Your task to perform on an android device: Open calendar and show me the fourth week of next month Image 0: 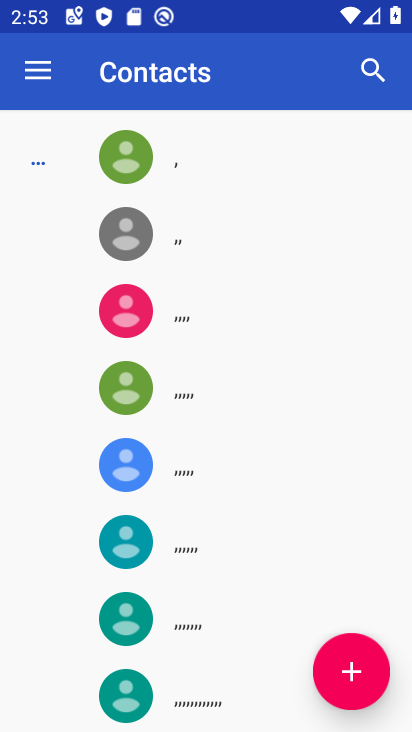
Step 0: press back button
Your task to perform on an android device: Open calendar and show me the fourth week of next month Image 1: 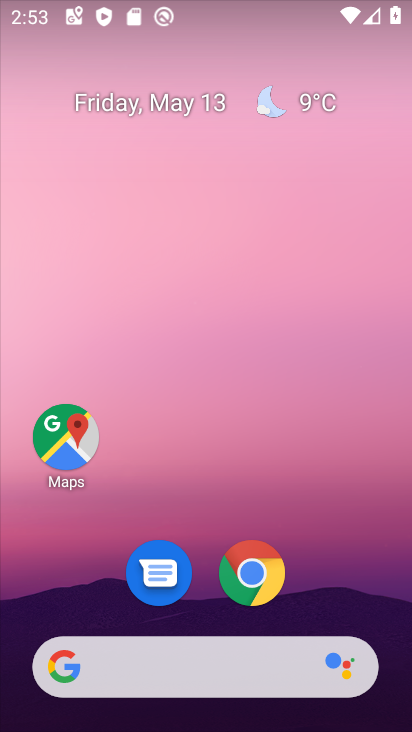
Step 1: drag from (185, 620) to (234, 177)
Your task to perform on an android device: Open calendar and show me the fourth week of next month Image 2: 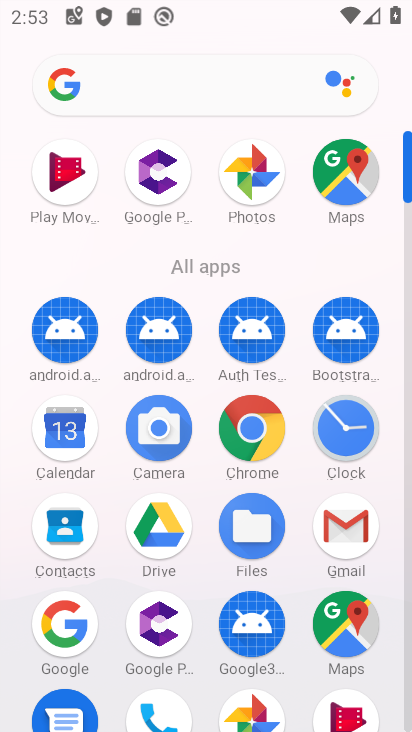
Step 2: click (75, 443)
Your task to perform on an android device: Open calendar and show me the fourth week of next month Image 3: 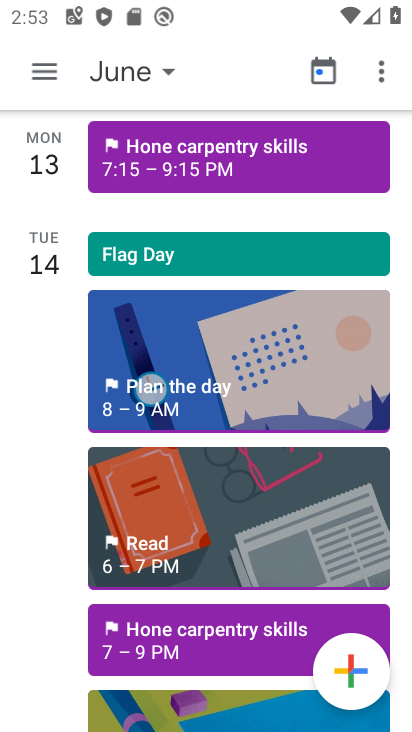
Step 3: click (151, 78)
Your task to perform on an android device: Open calendar and show me the fourth week of next month Image 4: 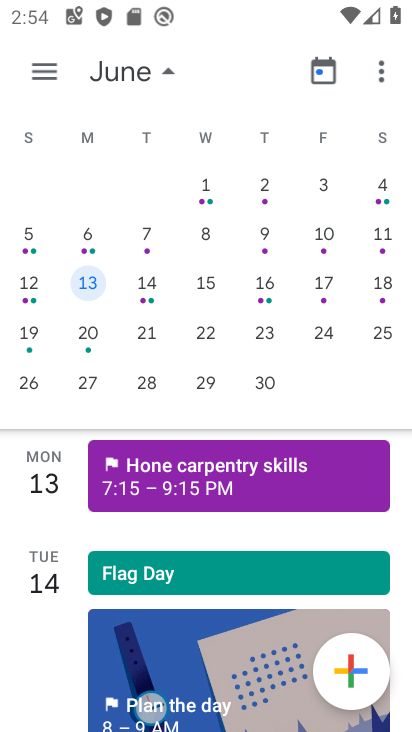
Step 4: drag from (33, 293) to (75, 295)
Your task to perform on an android device: Open calendar and show me the fourth week of next month Image 5: 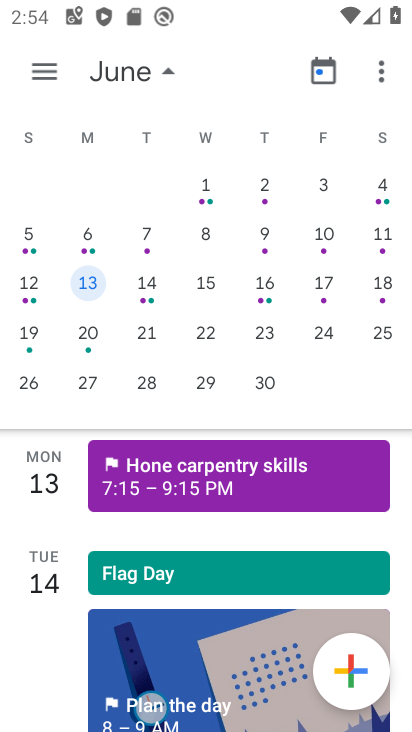
Step 5: click (89, 331)
Your task to perform on an android device: Open calendar and show me the fourth week of next month Image 6: 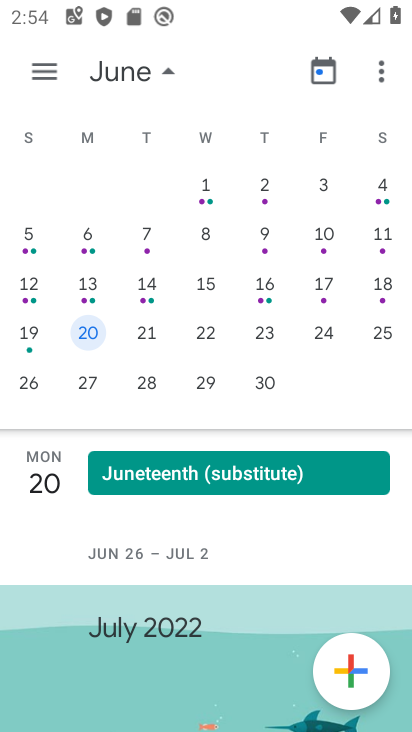
Step 6: task complete